Your task to perform on an android device: allow cookies in the chrome app Image 0: 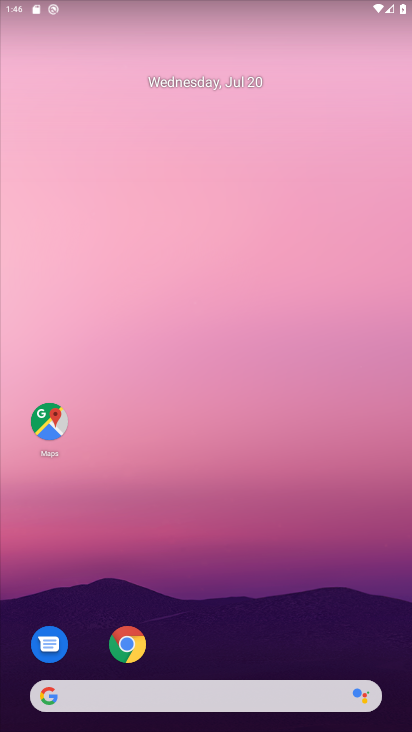
Step 0: click (128, 648)
Your task to perform on an android device: allow cookies in the chrome app Image 1: 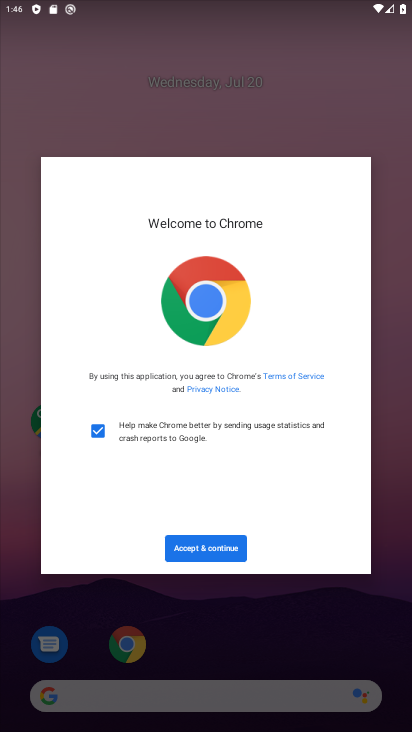
Step 1: click (205, 547)
Your task to perform on an android device: allow cookies in the chrome app Image 2: 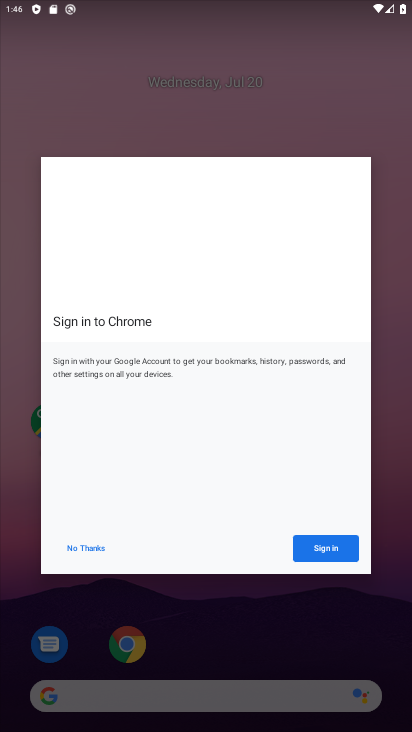
Step 2: click (69, 549)
Your task to perform on an android device: allow cookies in the chrome app Image 3: 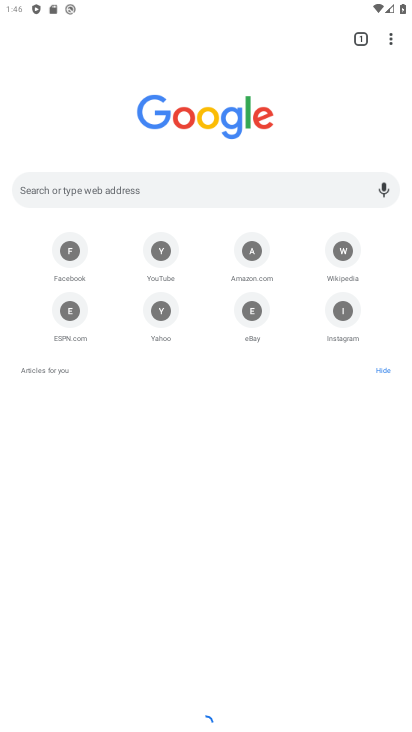
Step 3: click (393, 39)
Your task to perform on an android device: allow cookies in the chrome app Image 4: 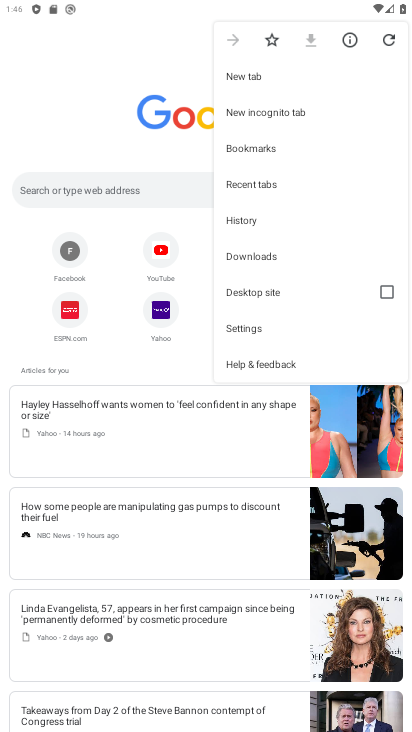
Step 4: click (224, 321)
Your task to perform on an android device: allow cookies in the chrome app Image 5: 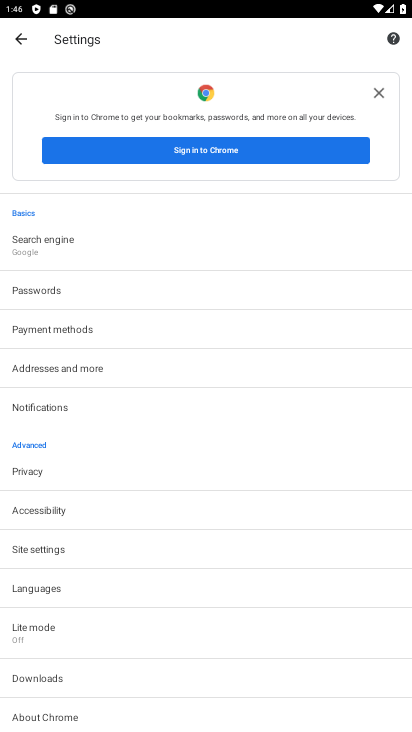
Step 5: click (40, 542)
Your task to perform on an android device: allow cookies in the chrome app Image 6: 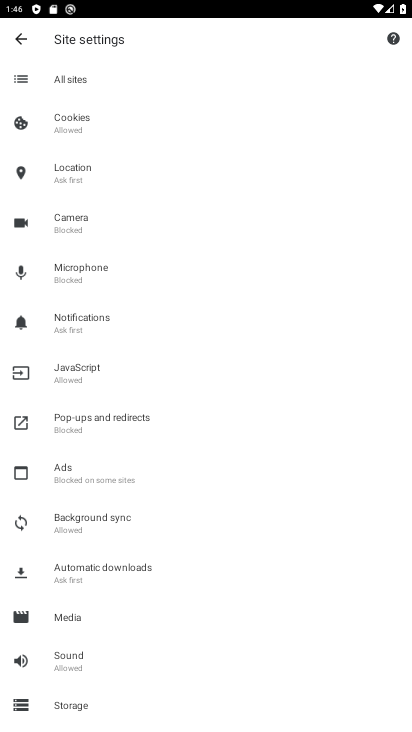
Step 6: click (119, 115)
Your task to perform on an android device: allow cookies in the chrome app Image 7: 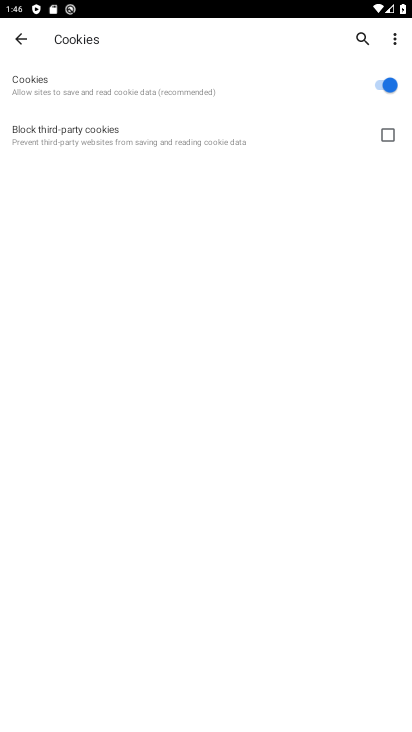
Step 7: task complete